Your task to perform on an android device: clear history in the chrome app Image 0: 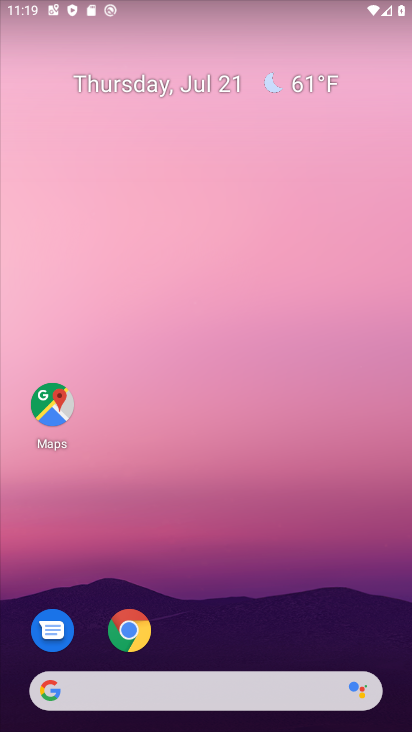
Step 0: click (126, 637)
Your task to perform on an android device: clear history in the chrome app Image 1: 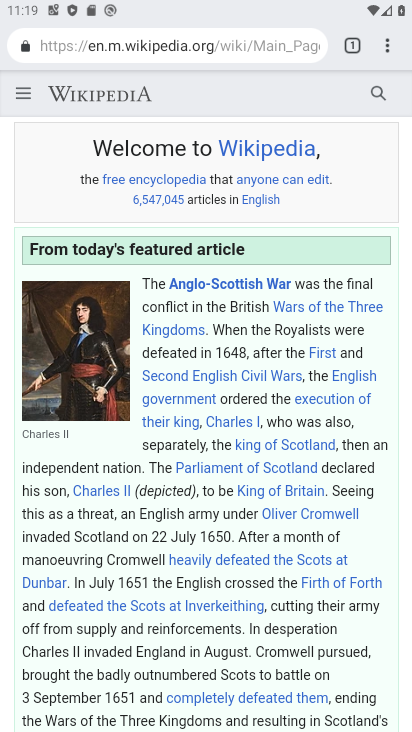
Step 1: click (387, 43)
Your task to perform on an android device: clear history in the chrome app Image 2: 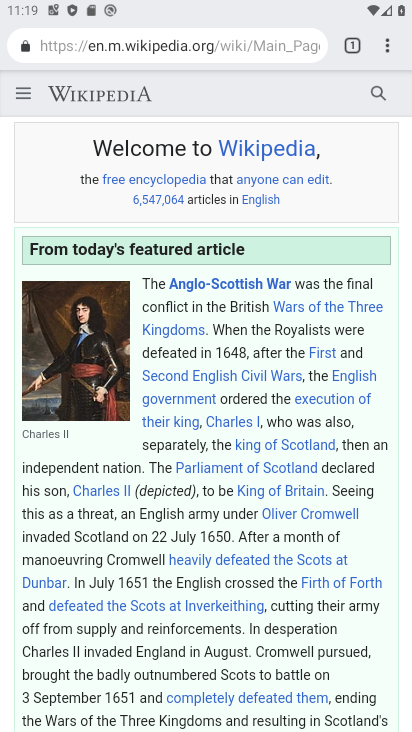
Step 2: click (387, 43)
Your task to perform on an android device: clear history in the chrome app Image 3: 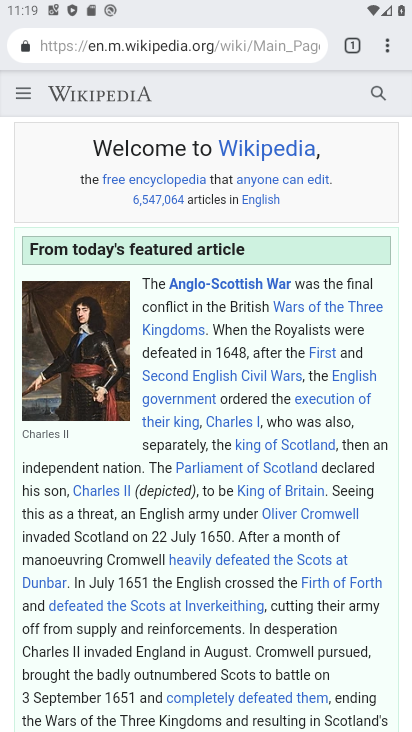
Step 3: click (387, 43)
Your task to perform on an android device: clear history in the chrome app Image 4: 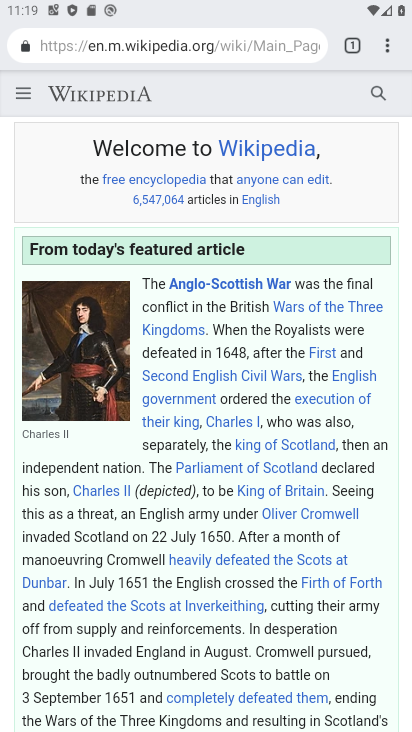
Step 4: click (387, 43)
Your task to perform on an android device: clear history in the chrome app Image 5: 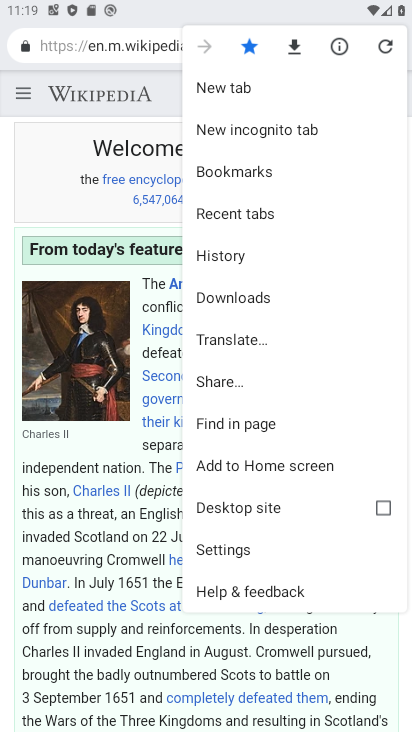
Step 5: click (229, 249)
Your task to perform on an android device: clear history in the chrome app Image 6: 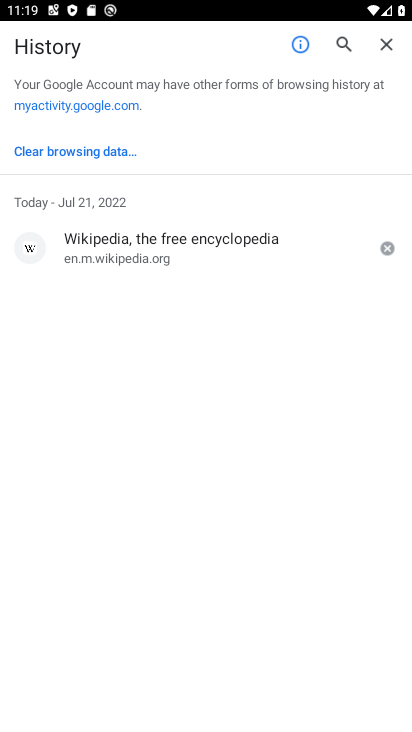
Step 6: click (87, 157)
Your task to perform on an android device: clear history in the chrome app Image 7: 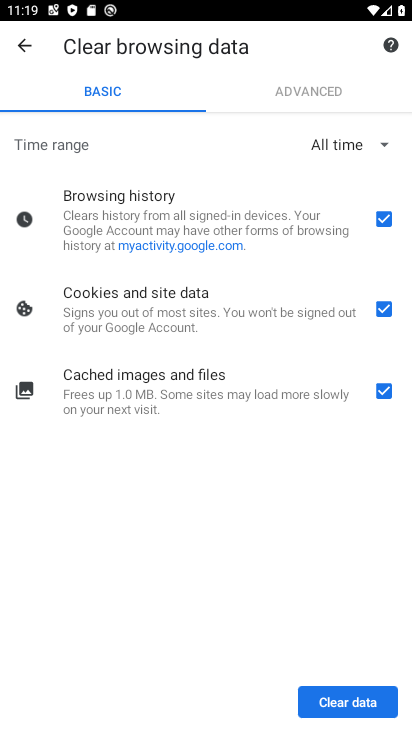
Step 7: click (311, 700)
Your task to perform on an android device: clear history in the chrome app Image 8: 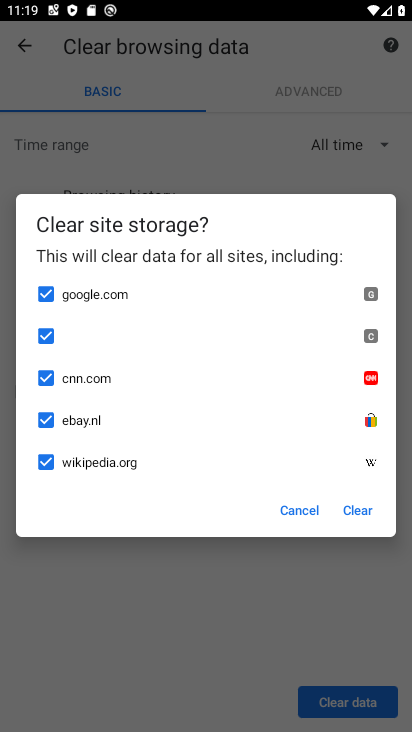
Step 8: click (359, 512)
Your task to perform on an android device: clear history in the chrome app Image 9: 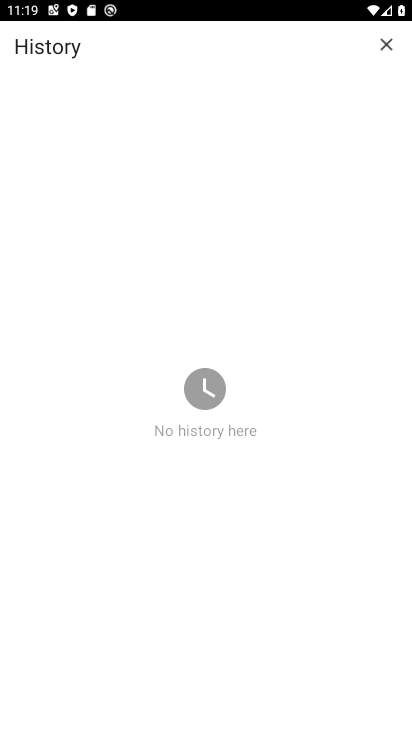
Step 9: task complete